Your task to perform on an android device: open a new tab in the chrome app Image 0: 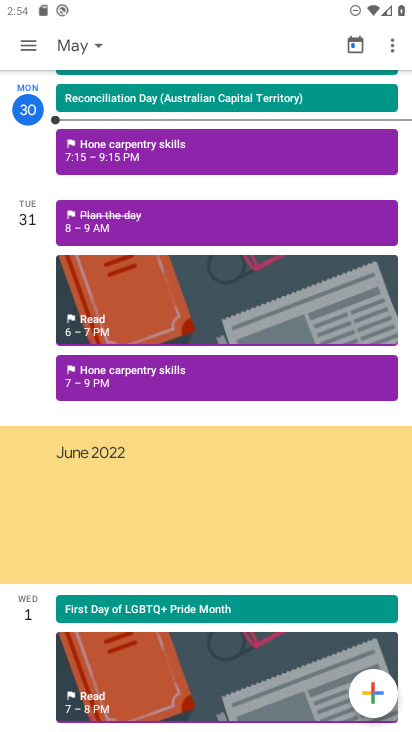
Step 0: press home button
Your task to perform on an android device: open a new tab in the chrome app Image 1: 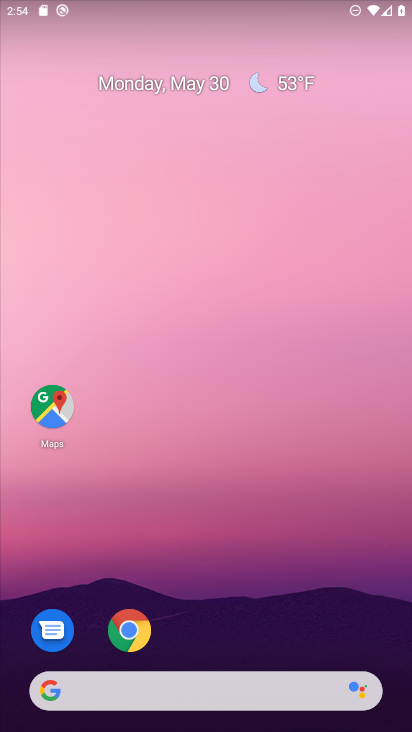
Step 1: click (286, 90)
Your task to perform on an android device: open a new tab in the chrome app Image 2: 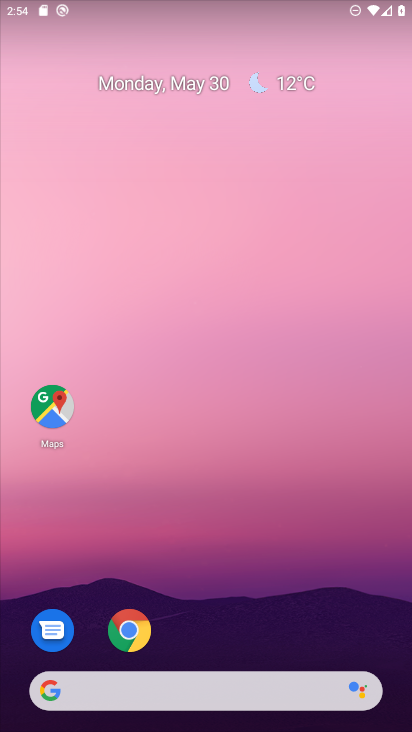
Step 2: click (140, 623)
Your task to perform on an android device: open a new tab in the chrome app Image 3: 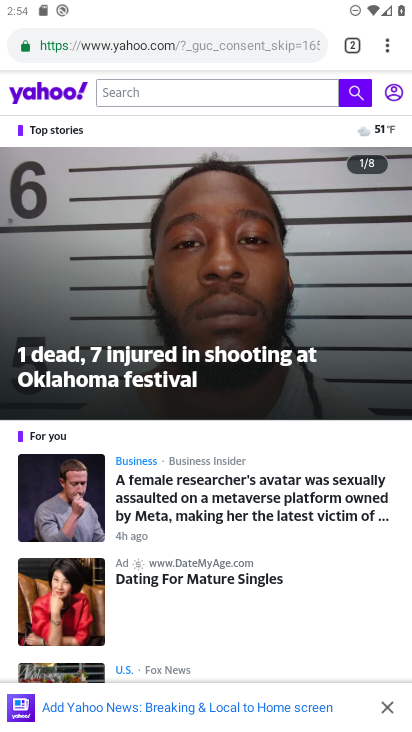
Step 3: task complete